Your task to perform on an android device: Go to display settings Image 0: 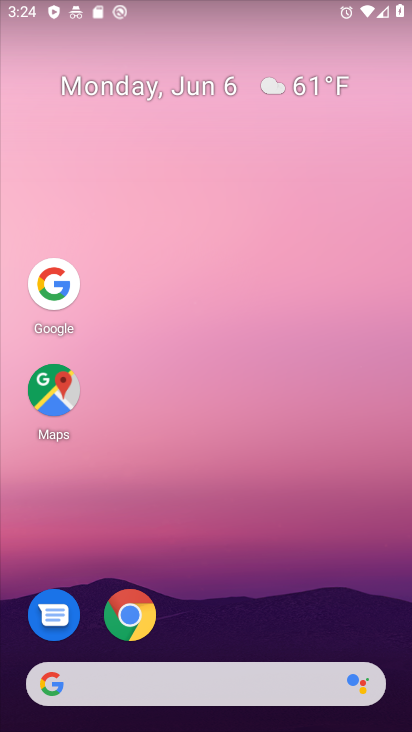
Step 0: drag from (197, 557) to (268, 80)
Your task to perform on an android device: Go to display settings Image 1: 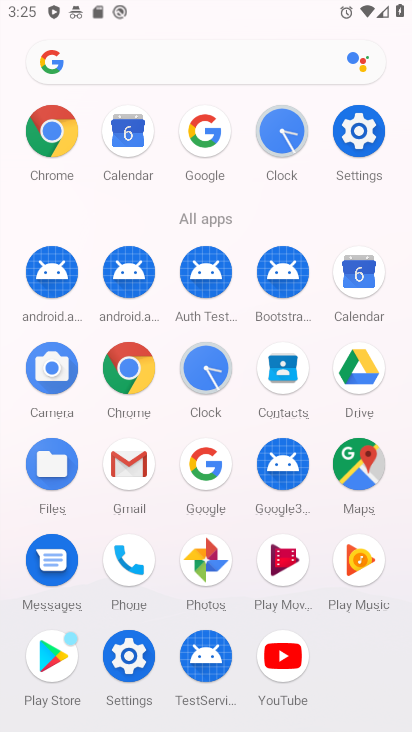
Step 1: click (352, 127)
Your task to perform on an android device: Go to display settings Image 2: 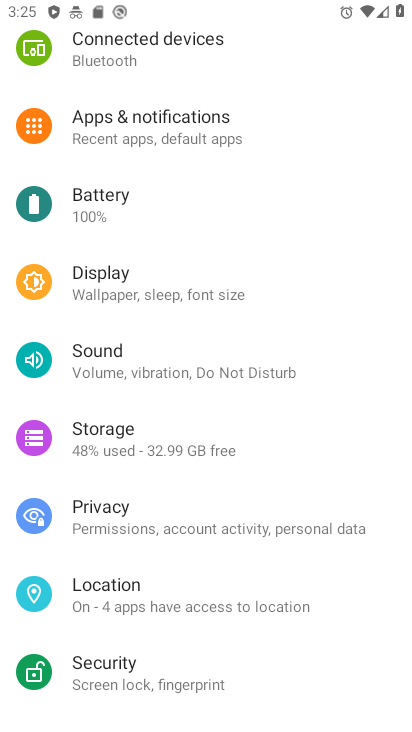
Step 2: click (165, 290)
Your task to perform on an android device: Go to display settings Image 3: 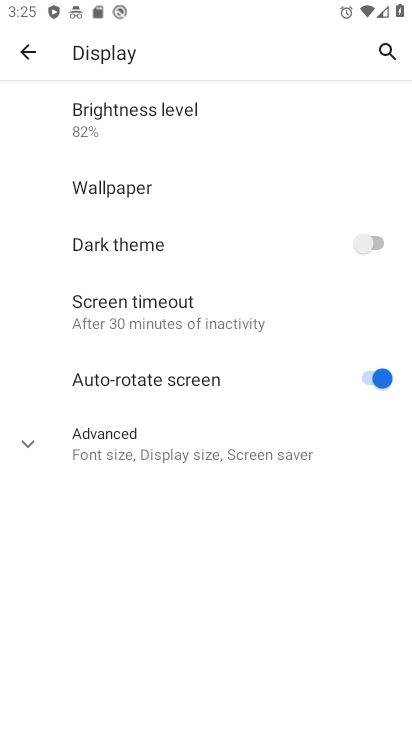
Step 3: task complete